Your task to perform on an android device: Go to Android settings Image 0: 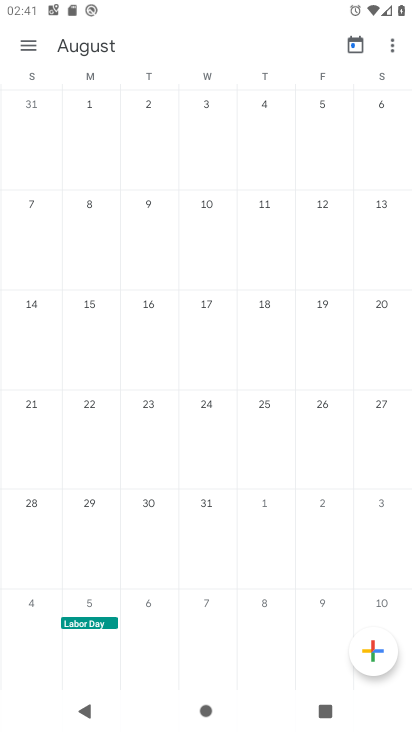
Step 0: press home button
Your task to perform on an android device: Go to Android settings Image 1: 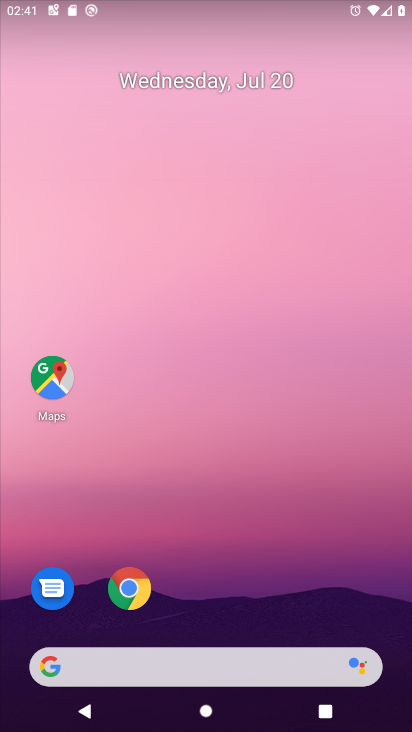
Step 1: drag from (188, 607) to (221, 235)
Your task to perform on an android device: Go to Android settings Image 2: 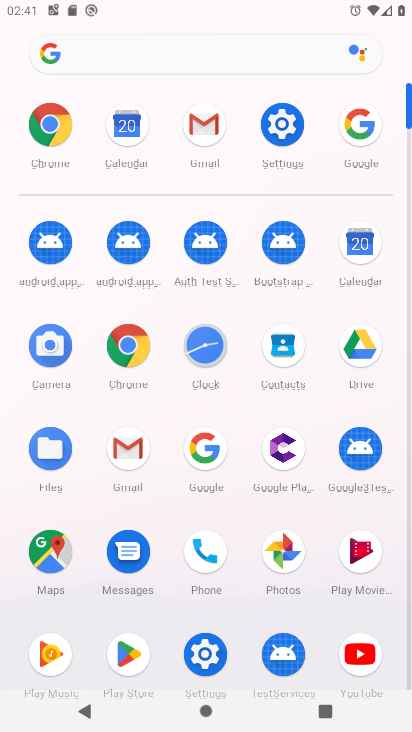
Step 2: click (284, 114)
Your task to perform on an android device: Go to Android settings Image 3: 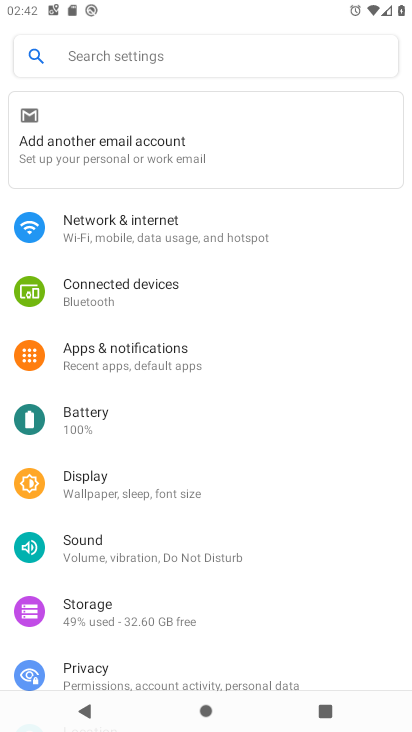
Step 3: task complete